Your task to perform on an android device: turn off notifications settings in the gmail app Image 0: 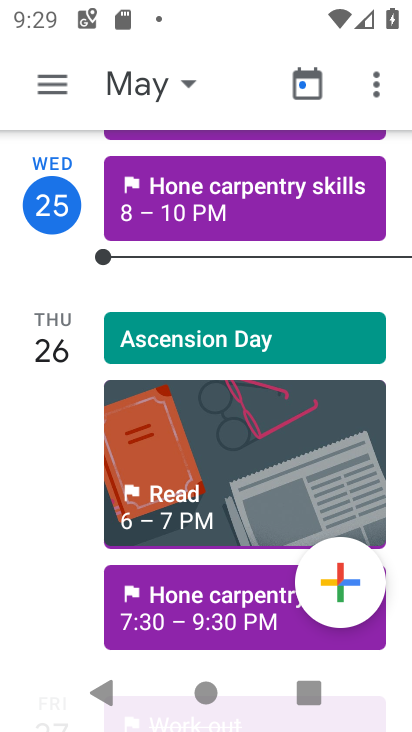
Step 0: press home button
Your task to perform on an android device: turn off notifications settings in the gmail app Image 1: 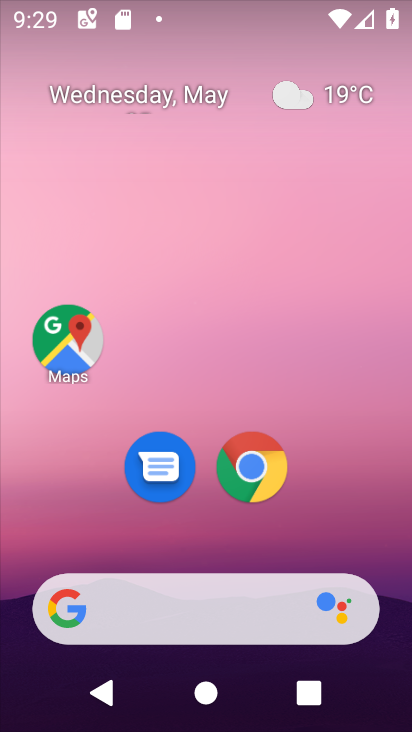
Step 1: drag from (323, 459) to (371, 92)
Your task to perform on an android device: turn off notifications settings in the gmail app Image 2: 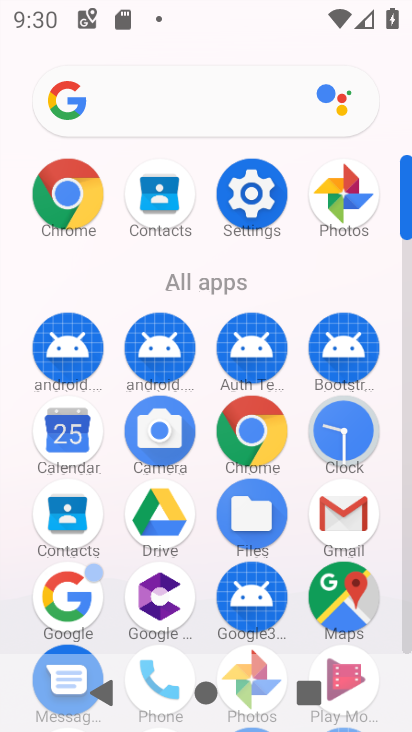
Step 2: click (351, 518)
Your task to perform on an android device: turn off notifications settings in the gmail app Image 3: 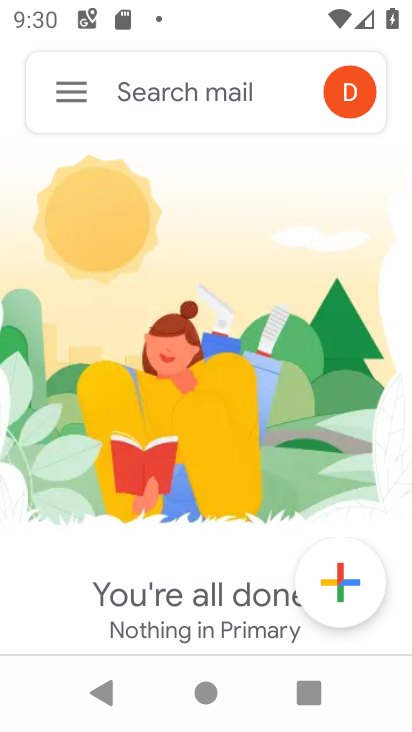
Step 3: click (69, 85)
Your task to perform on an android device: turn off notifications settings in the gmail app Image 4: 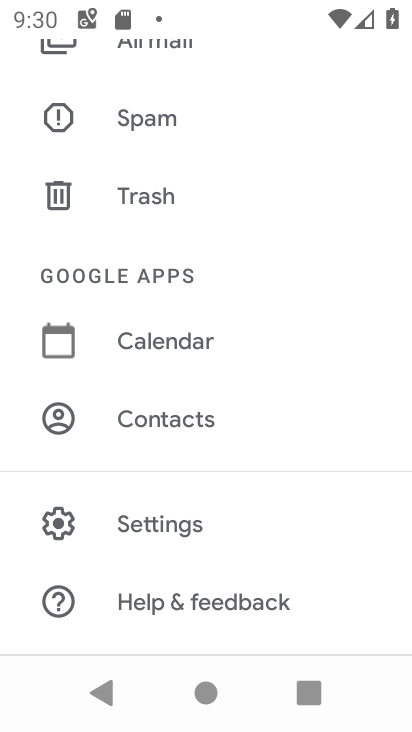
Step 4: click (202, 525)
Your task to perform on an android device: turn off notifications settings in the gmail app Image 5: 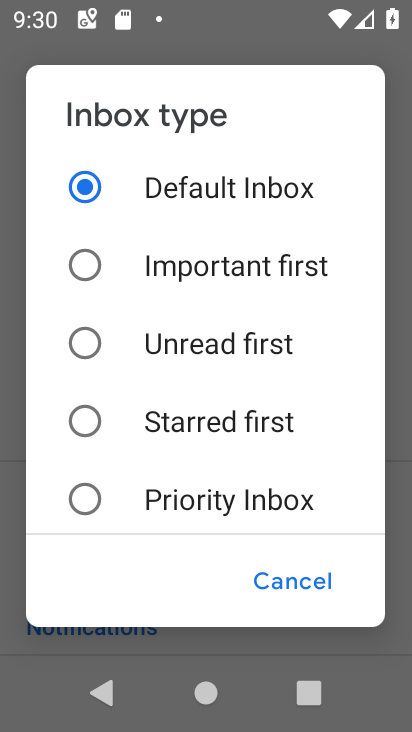
Step 5: click (272, 574)
Your task to perform on an android device: turn off notifications settings in the gmail app Image 6: 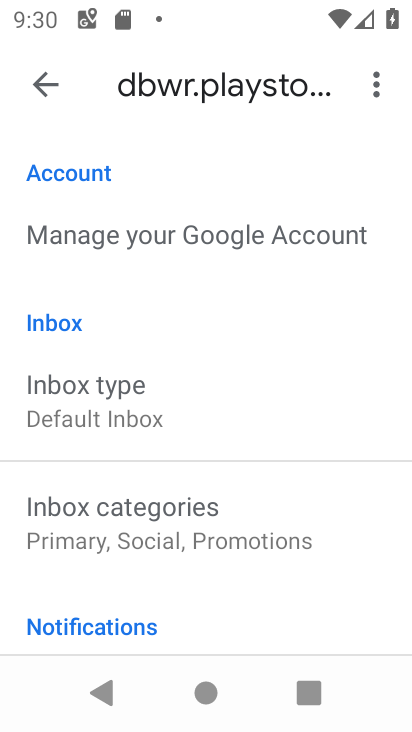
Step 6: drag from (194, 524) to (278, 197)
Your task to perform on an android device: turn off notifications settings in the gmail app Image 7: 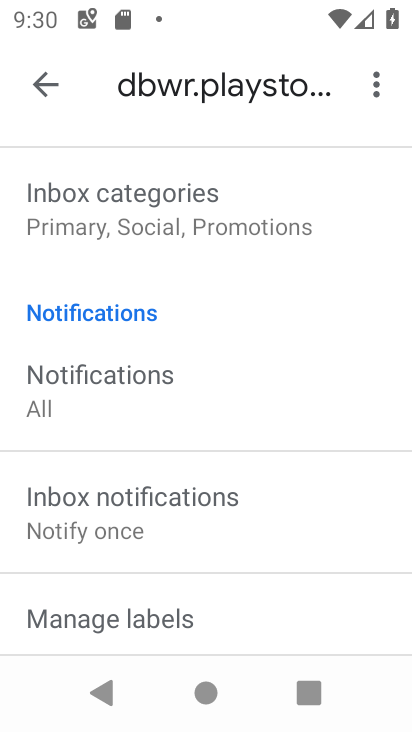
Step 7: drag from (150, 537) to (238, 287)
Your task to perform on an android device: turn off notifications settings in the gmail app Image 8: 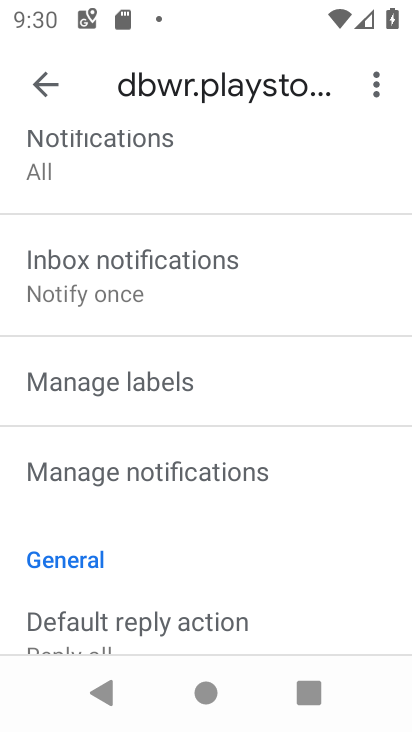
Step 8: click (161, 461)
Your task to perform on an android device: turn off notifications settings in the gmail app Image 9: 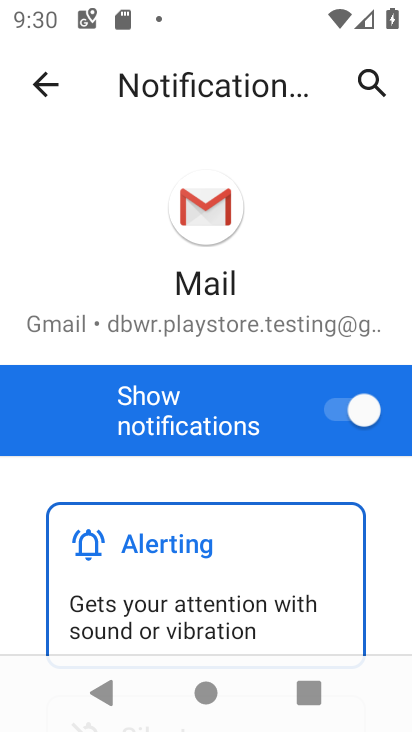
Step 9: click (351, 409)
Your task to perform on an android device: turn off notifications settings in the gmail app Image 10: 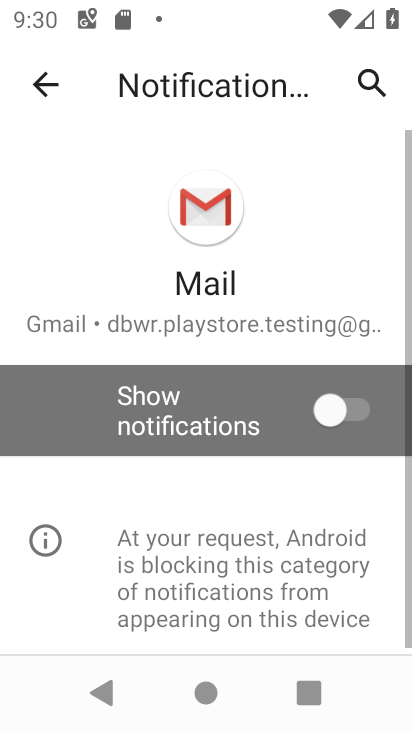
Step 10: task complete